Your task to perform on an android device: Set an alarm for 4pm Image 0: 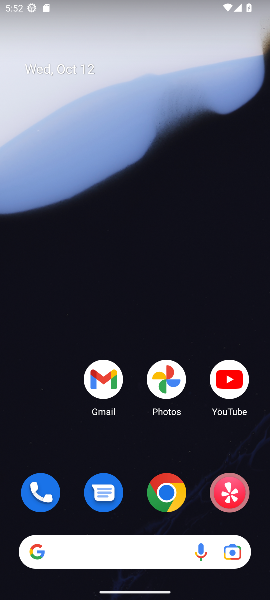
Step 0: drag from (137, 443) to (150, 66)
Your task to perform on an android device: Set an alarm for 4pm Image 1: 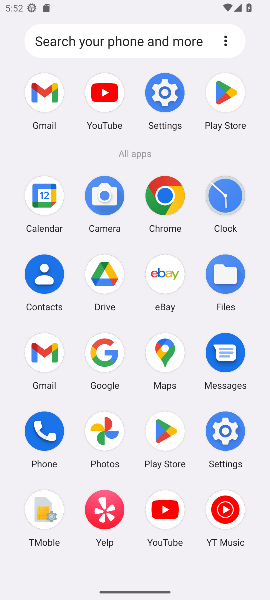
Step 1: click (226, 199)
Your task to perform on an android device: Set an alarm for 4pm Image 2: 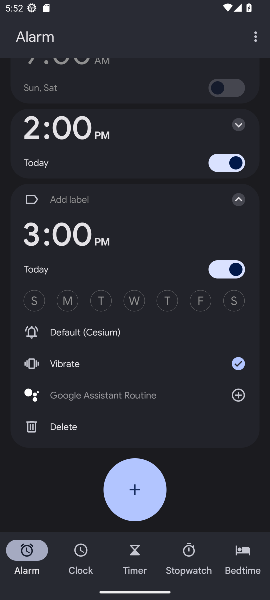
Step 2: click (132, 491)
Your task to perform on an android device: Set an alarm for 4pm Image 3: 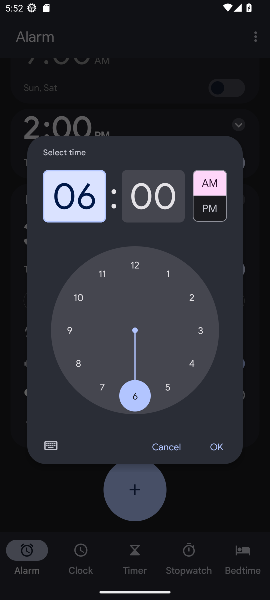
Step 3: click (193, 363)
Your task to perform on an android device: Set an alarm for 4pm Image 4: 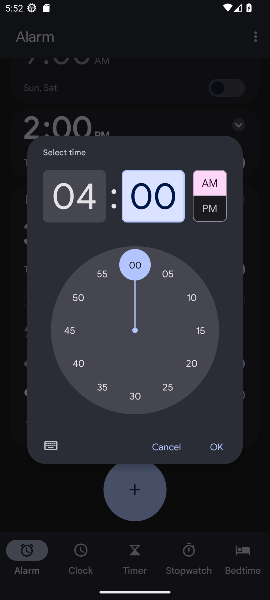
Step 4: click (214, 216)
Your task to perform on an android device: Set an alarm for 4pm Image 5: 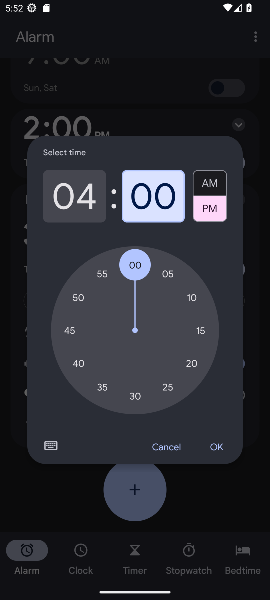
Step 5: click (221, 451)
Your task to perform on an android device: Set an alarm for 4pm Image 6: 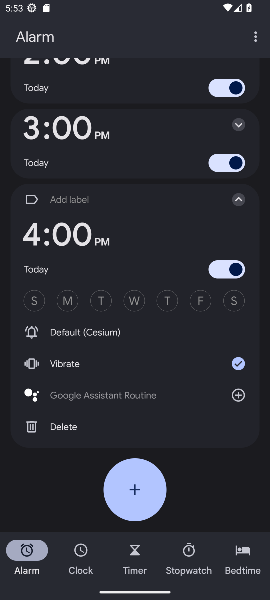
Step 6: task complete